Your task to perform on an android device: turn smart compose on in the gmail app Image 0: 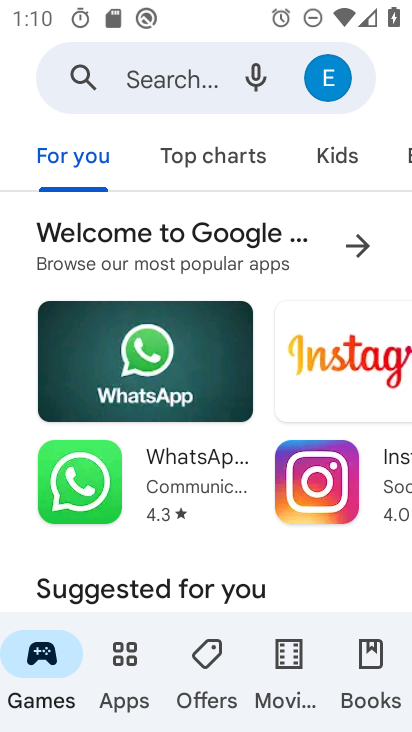
Step 0: press back button
Your task to perform on an android device: turn smart compose on in the gmail app Image 1: 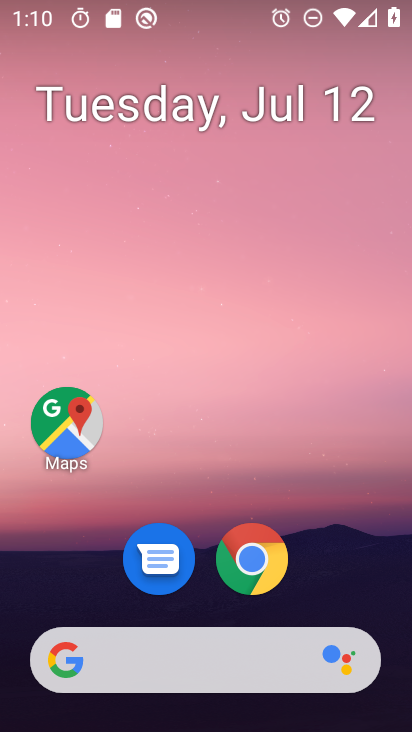
Step 1: drag from (204, 561) to (199, 77)
Your task to perform on an android device: turn smart compose on in the gmail app Image 2: 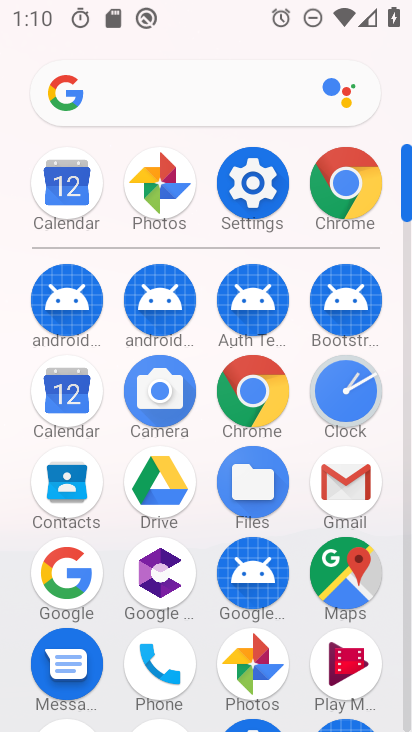
Step 2: click (351, 480)
Your task to perform on an android device: turn smart compose on in the gmail app Image 3: 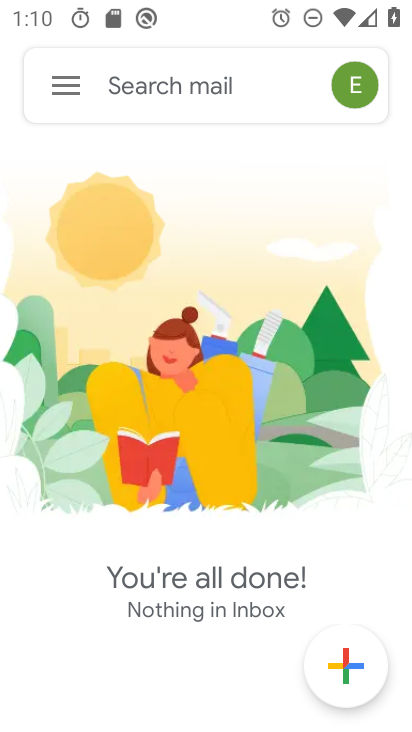
Step 3: click (64, 77)
Your task to perform on an android device: turn smart compose on in the gmail app Image 4: 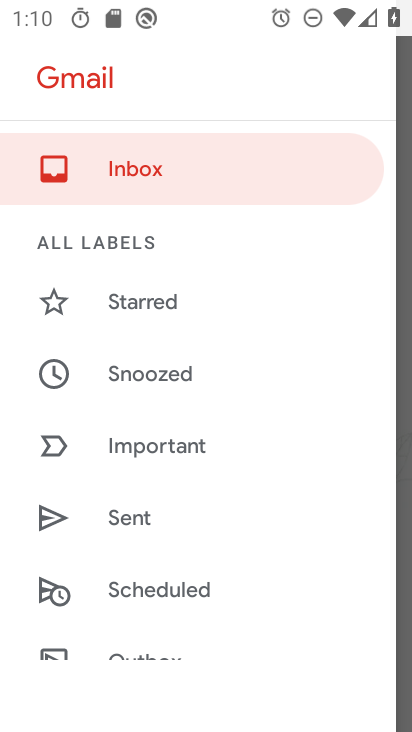
Step 4: drag from (206, 650) to (220, 139)
Your task to perform on an android device: turn smart compose on in the gmail app Image 5: 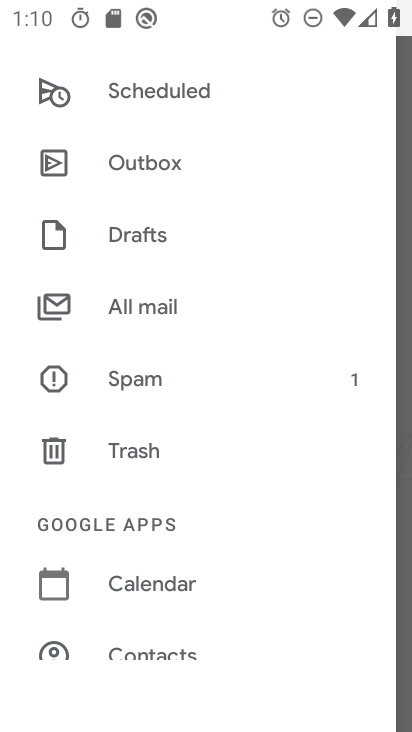
Step 5: drag from (141, 601) to (223, 67)
Your task to perform on an android device: turn smart compose on in the gmail app Image 6: 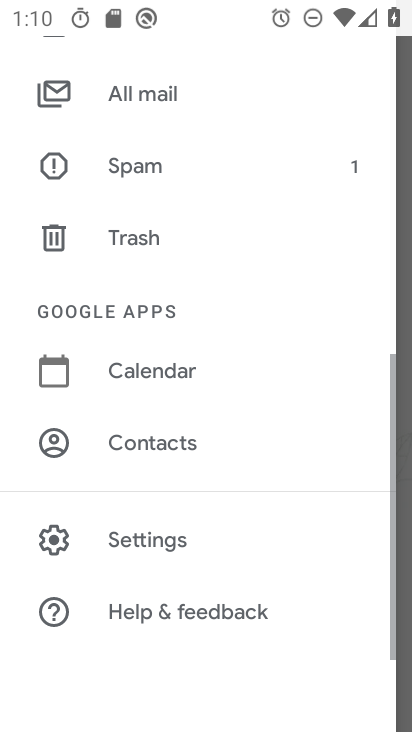
Step 6: click (161, 552)
Your task to perform on an android device: turn smart compose on in the gmail app Image 7: 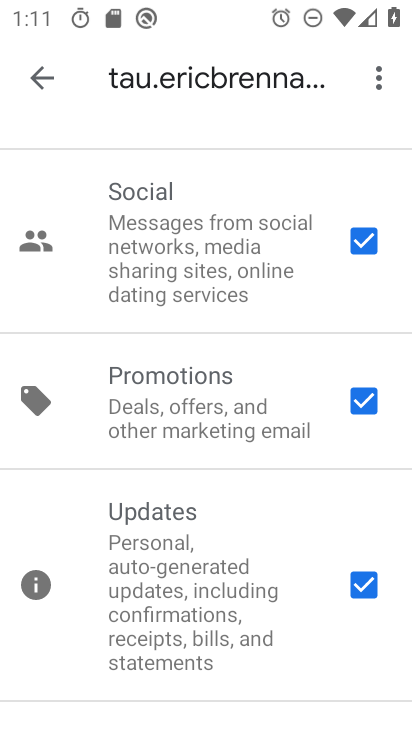
Step 7: drag from (181, 605) to (274, 99)
Your task to perform on an android device: turn smart compose on in the gmail app Image 8: 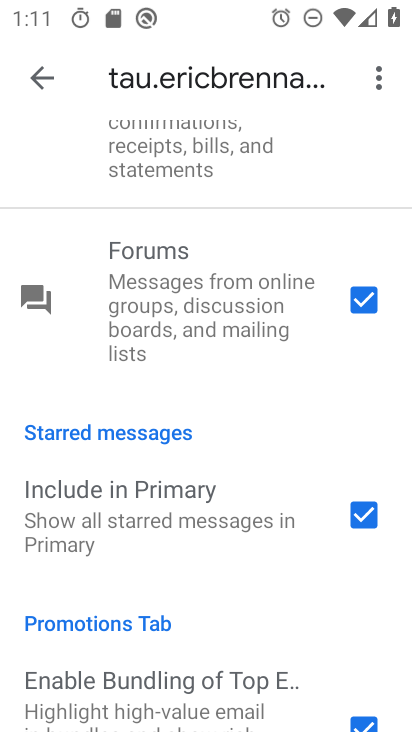
Step 8: drag from (157, 642) to (244, 139)
Your task to perform on an android device: turn smart compose on in the gmail app Image 9: 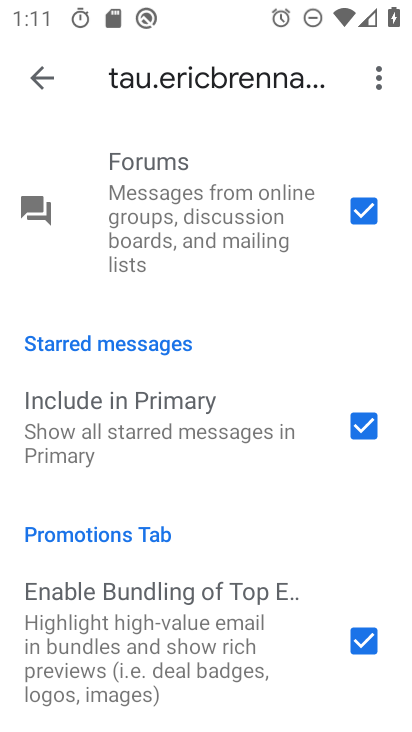
Step 9: drag from (230, 206) to (170, 616)
Your task to perform on an android device: turn smart compose on in the gmail app Image 10: 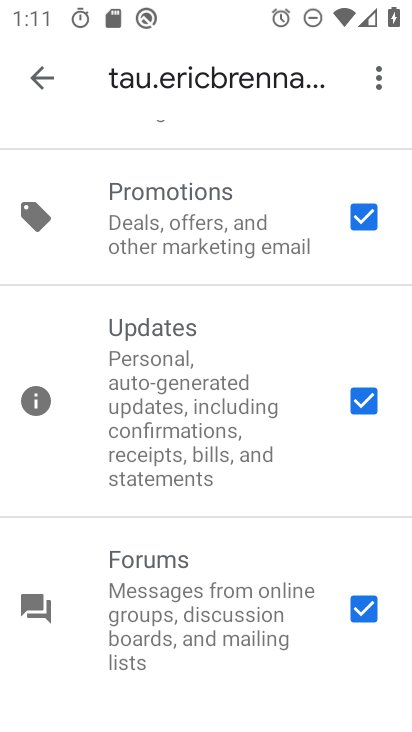
Step 10: drag from (181, 600) to (260, 129)
Your task to perform on an android device: turn smart compose on in the gmail app Image 11: 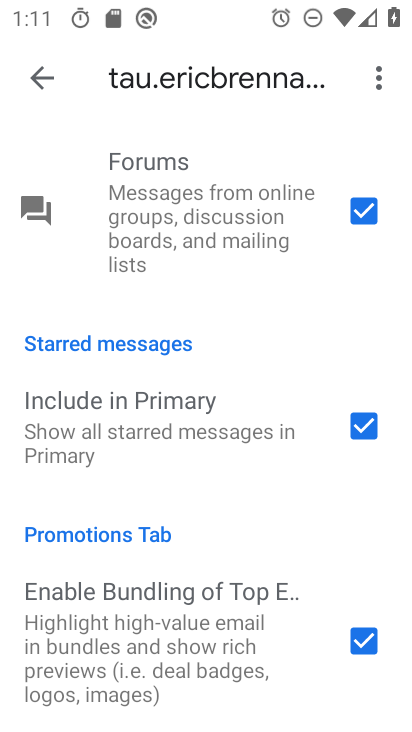
Step 11: drag from (246, 208) to (147, 724)
Your task to perform on an android device: turn smart compose on in the gmail app Image 12: 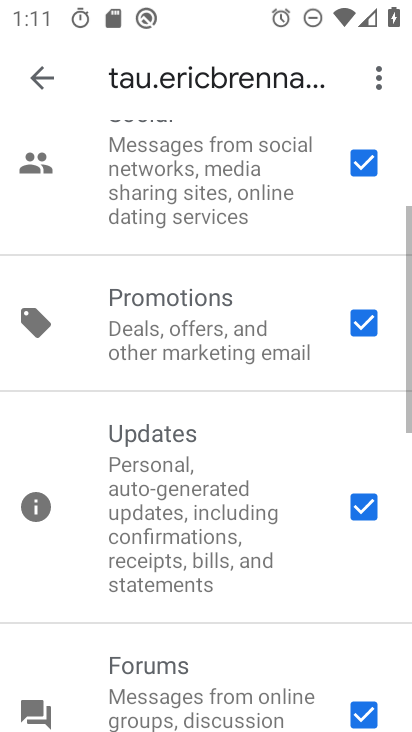
Step 12: drag from (195, 208) to (125, 722)
Your task to perform on an android device: turn smart compose on in the gmail app Image 13: 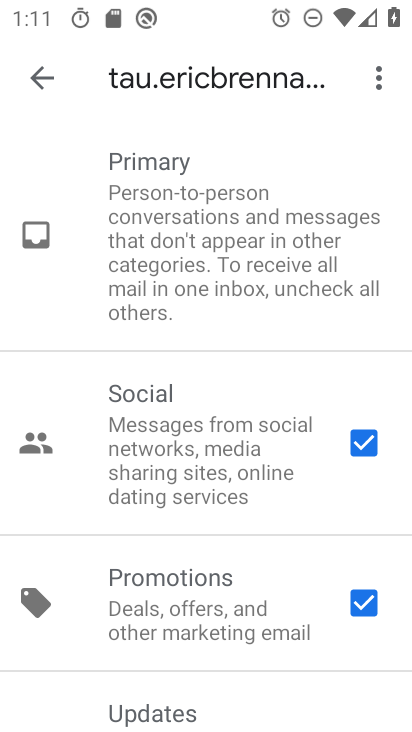
Step 13: click (35, 71)
Your task to perform on an android device: turn smart compose on in the gmail app Image 14: 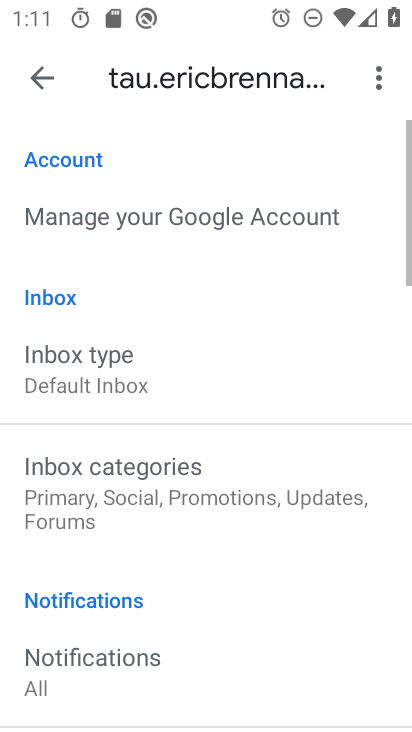
Step 14: task complete